Your task to perform on an android device: Open privacy settings Image 0: 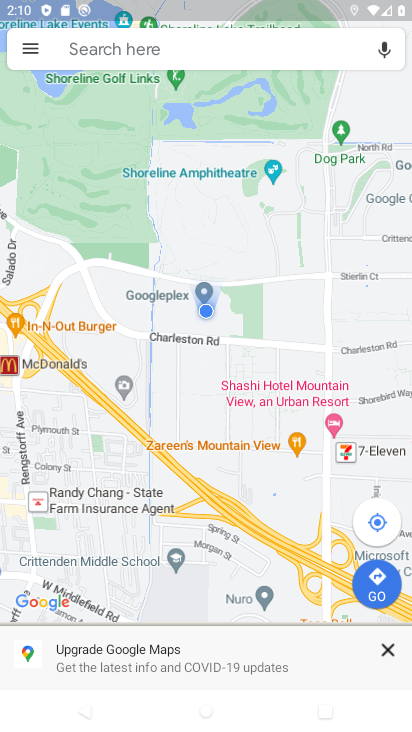
Step 0: press home button
Your task to perform on an android device: Open privacy settings Image 1: 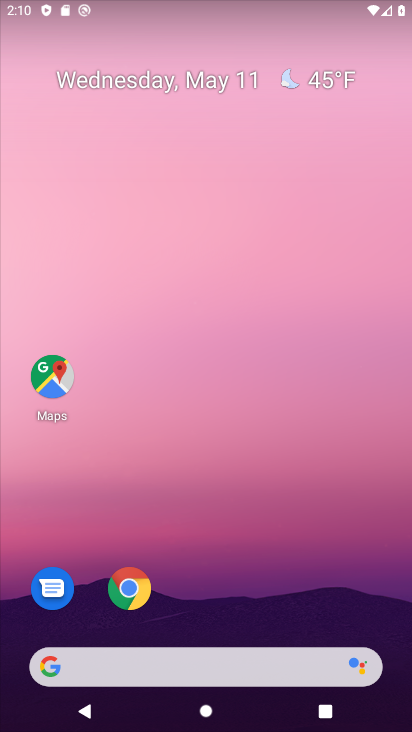
Step 1: drag from (204, 608) to (204, 139)
Your task to perform on an android device: Open privacy settings Image 2: 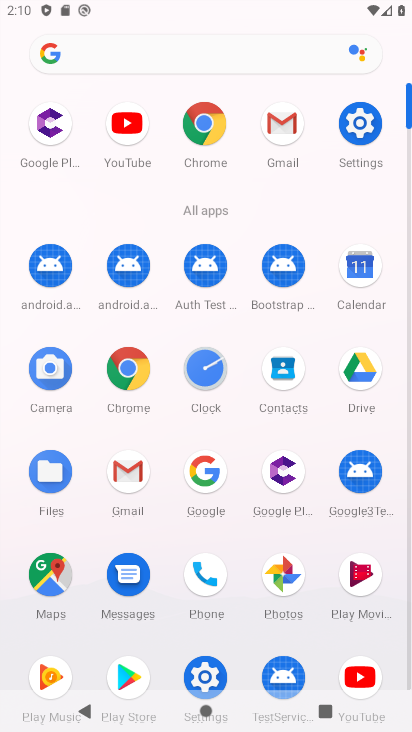
Step 2: click (366, 135)
Your task to perform on an android device: Open privacy settings Image 3: 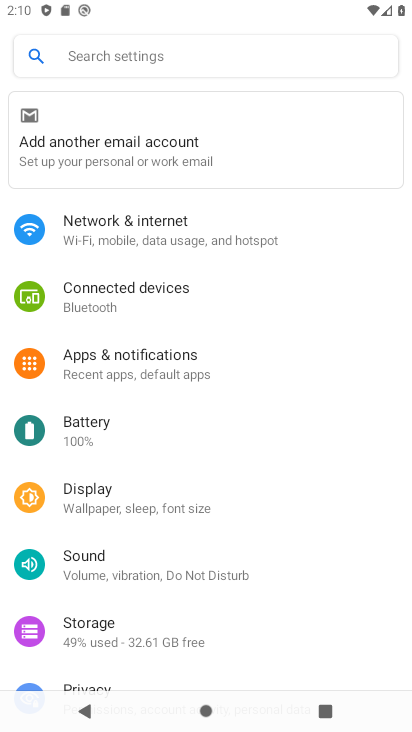
Step 3: drag from (173, 603) to (212, 367)
Your task to perform on an android device: Open privacy settings Image 4: 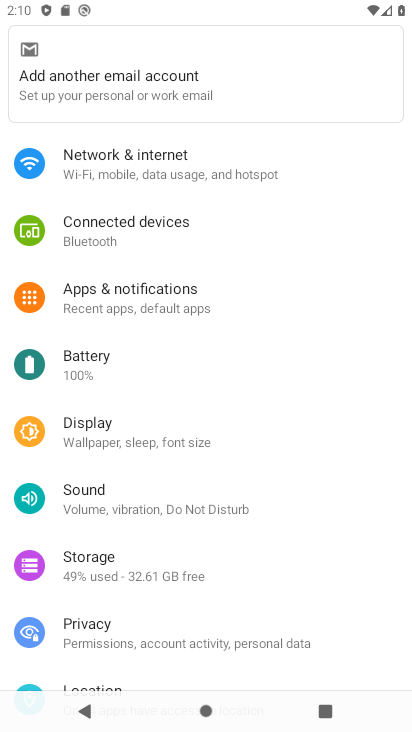
Step 4: click (130, 631)
Your task to perform on an android device: Open privacy settings Image 5: 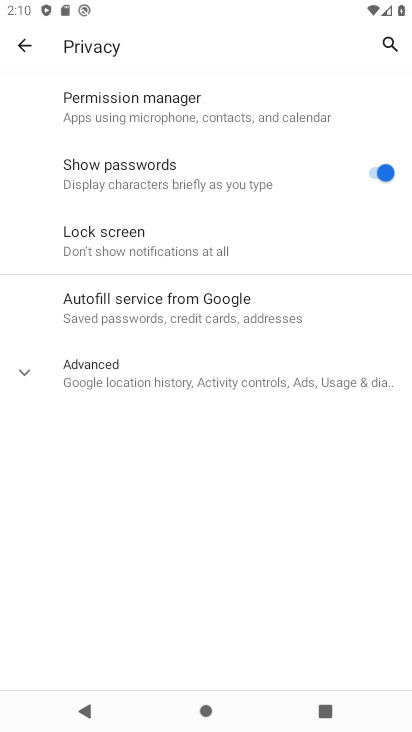
Step 5: task complete